Your task to perform on an android device: What's the weather? Image 0: 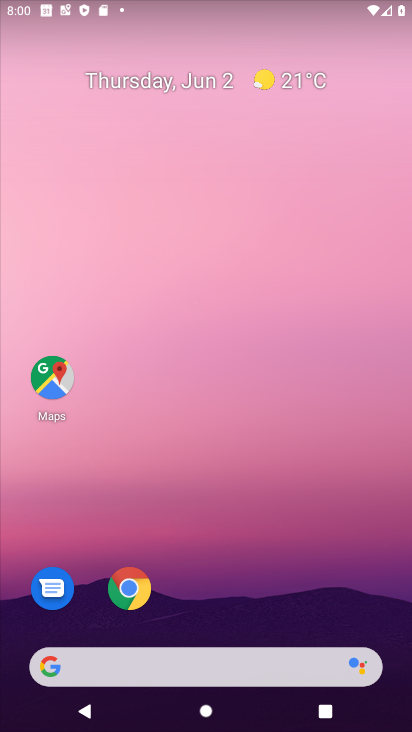
Step 0: drag from (238, 468) to (255, 159)
Your task to perform on an android device: What's the weather? Image 1: 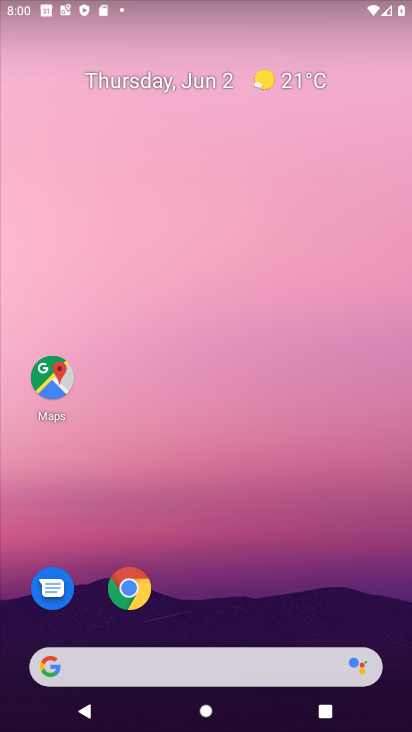
Step 1: drag from (246, 497) to (259, 386)
Your task to perform on an android device: What's the weather? Image 2: 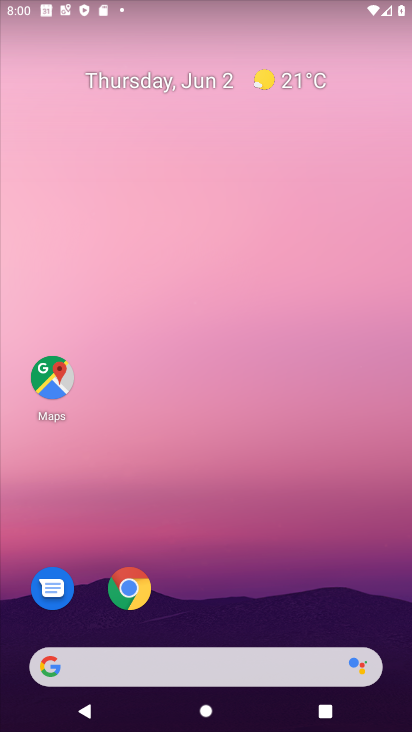
Step 2: drag from (234, 596) to (308, 167)
Your task to perform on an android device: What's the weather? Image 3: 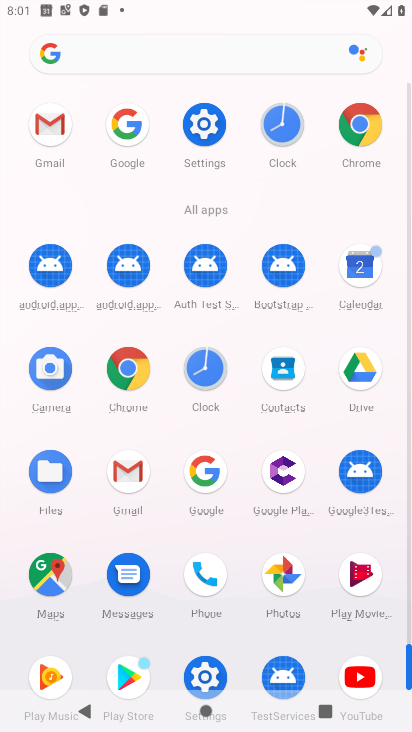
Step 3: click (226, 471)
Your task to perform on an android device: What's the weather? Image 4: 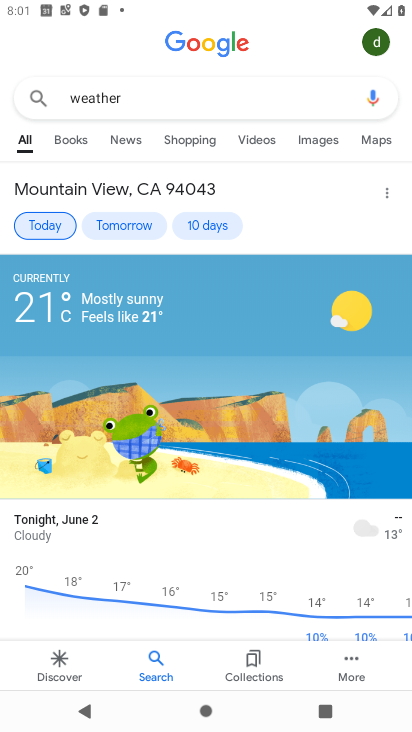
Step 4: task complete